Your task to perform on an android device: open sync settings in chrome Image 0: 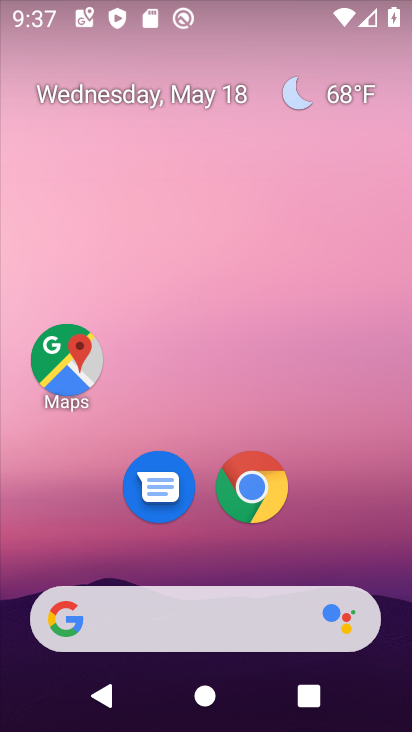
Step 0: drag from (403, 529) to (385, 144)
Your task to perform on an android device: open sync settings in chrome Image 1: 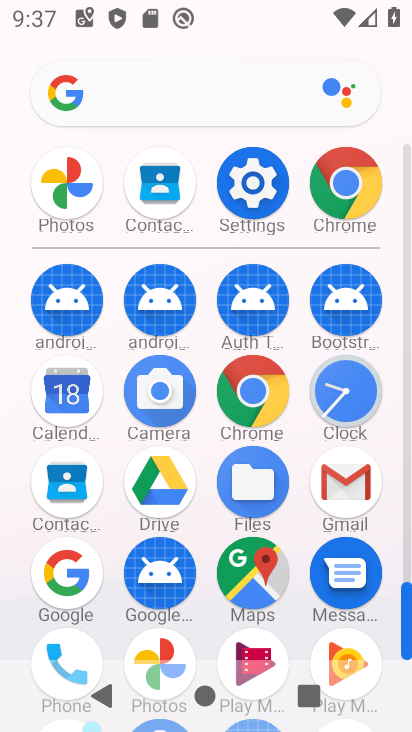
Step 1: click (244, 390)
Your task to perform on an android device: open sync settings in chrome Image 2: 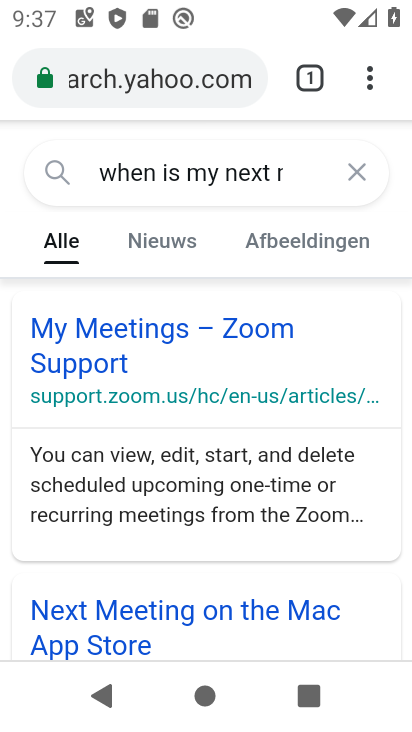
Step 2: drag from (369, 79) to (221, 549)
Your task to perform on an android device: open sync settings in chrome Image 3: 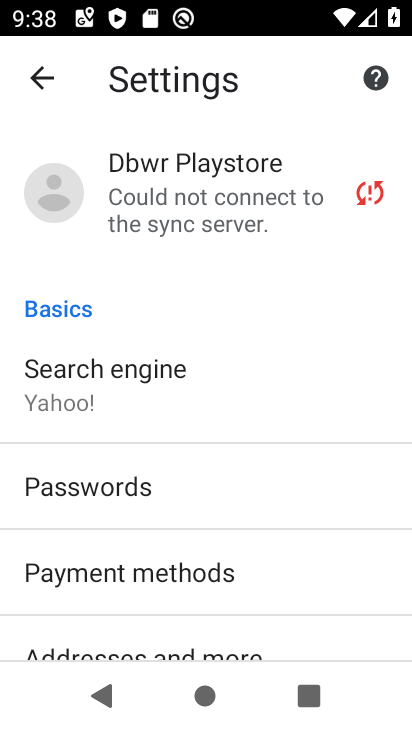
Step 3: drag from (286, 599) to (298, 317)
Your task to perform on an android device: open sync settings in chrome Image 4: 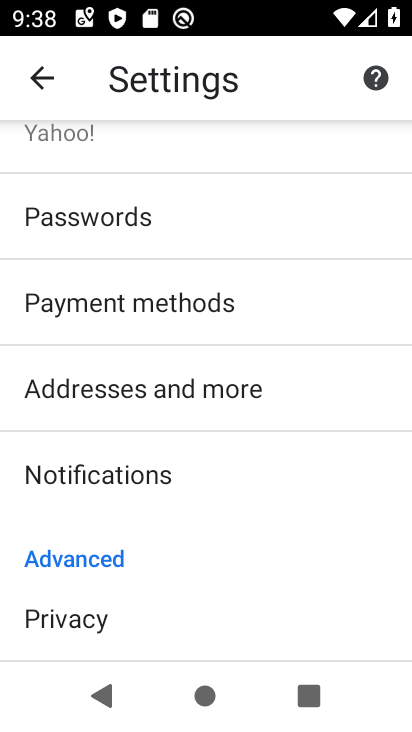
Step 4: drag from (268, 592) to (284, 315)
Your task to perform on an android device: open sync settings in chrome Image 5: 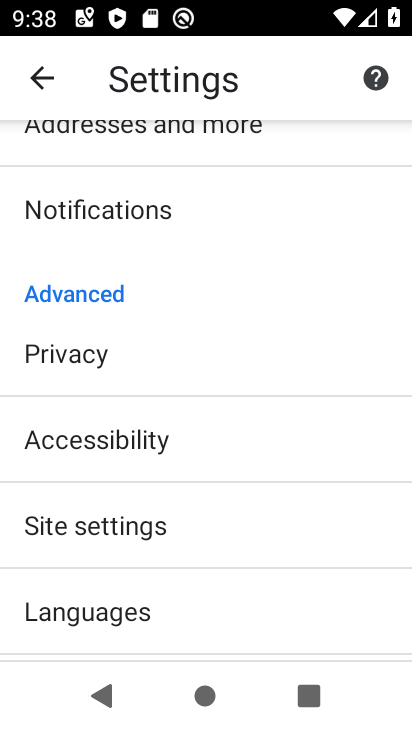
Step 5: drag from (348, 599) to (307, 301)
Your task to perform on an android device: open sync settings in chrome Image 6: 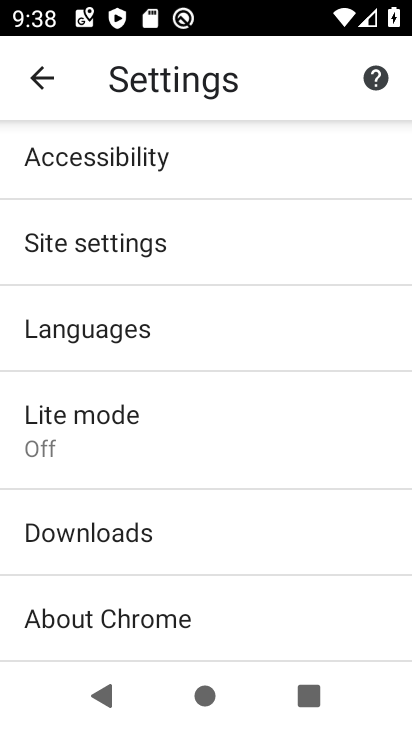
Step 6: click (157, 248)
Your task to perform on an android device: open sync settings in chrome Image 7: 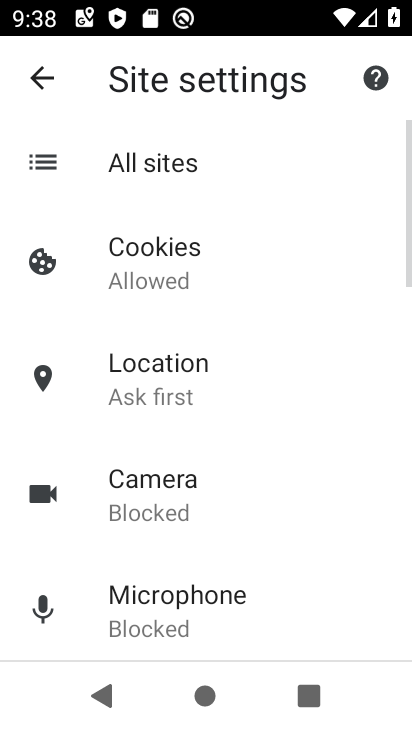
Step 7: drag from (328, 613) to (288, 171)
Your task to perform on an android device: open sync settings in chrome Image 8: 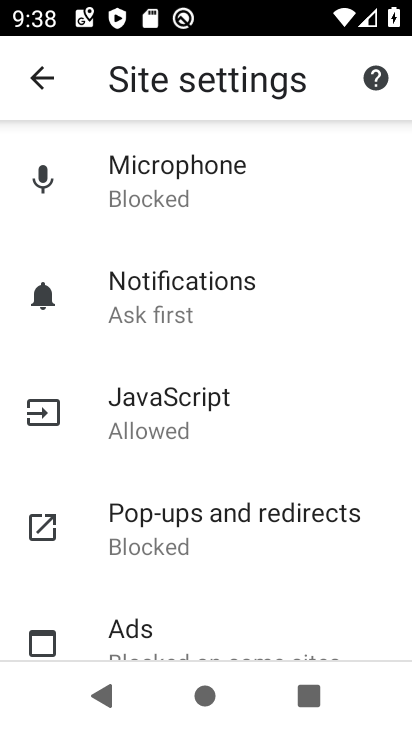
Step 8: drag from (277, 570) to (296, 192)
Your task to perform on an android device: open sync settings in chrome Image 9: 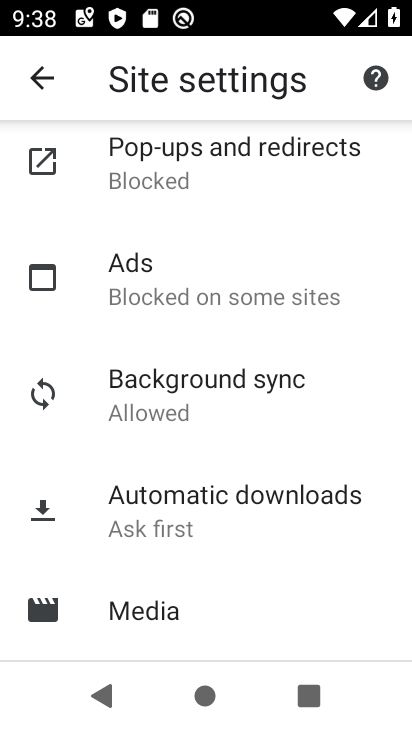
Step 9: click (289, 397)
Your task to perform on an android device: open sync settings in chrome Image 10: 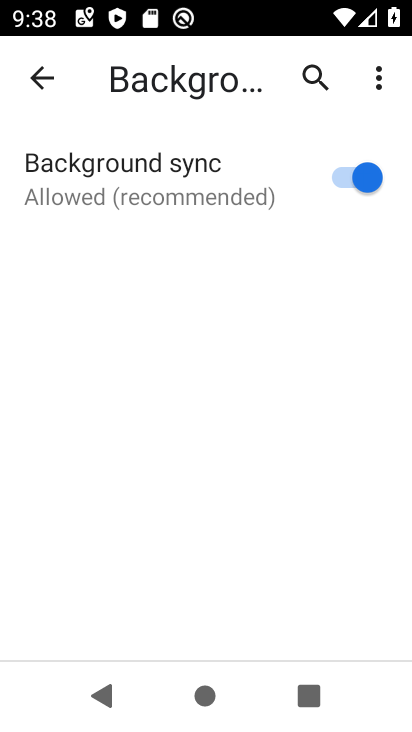
Step 10: task complete